Your task to perform on an android device: Go to wifi settings Image 0: 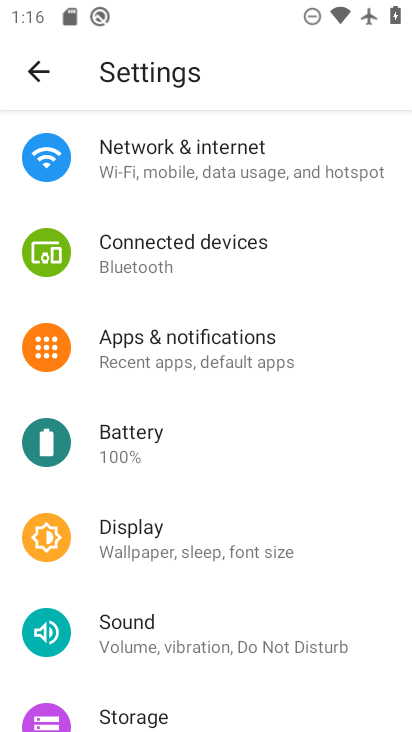
Step 0: click (188, 162)
Your task to perform on an android device: Go to wifi settings Image 1: 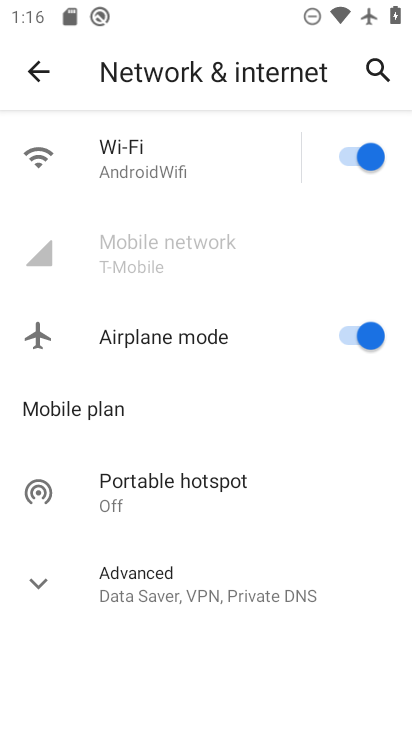
Step 1: task complete